Your task to perform on an android device: Open Amazon Image 0: 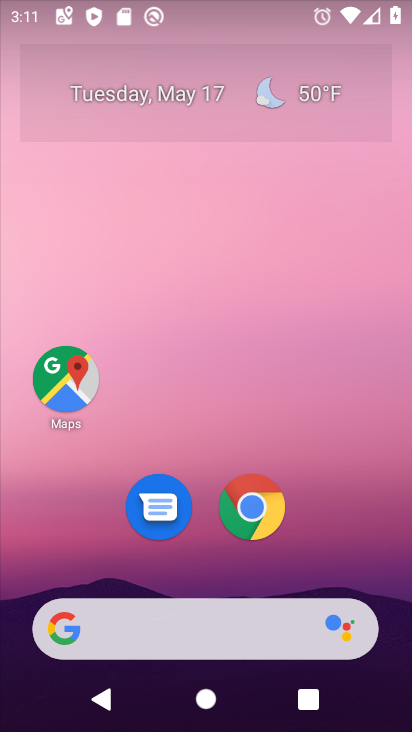
Step 0: click (262, 505)
Your task to perform on an android device: Open Amazon Image 1: 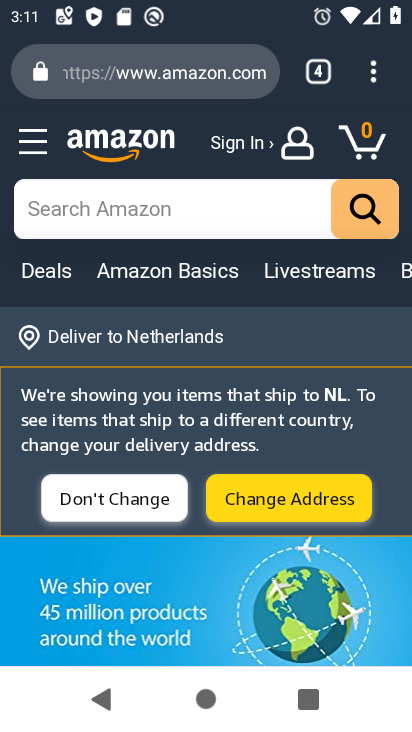
Step 1: task complete